Your task to perform on an android device: all mails in gmail Image 0: 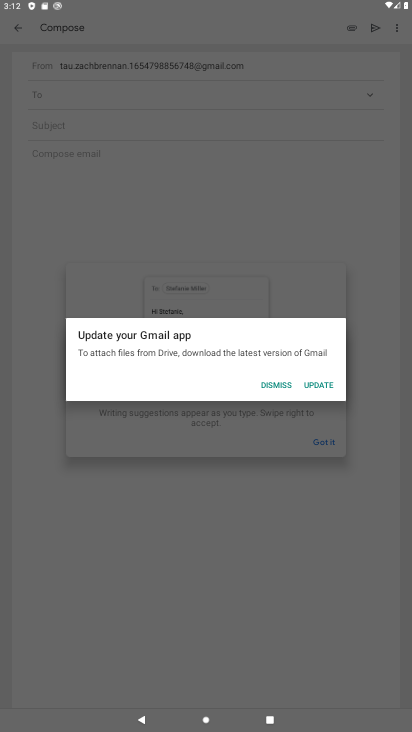
Step 0: click (274, 391)
Your task to perform on an android device: all mails in gmail Image 1: 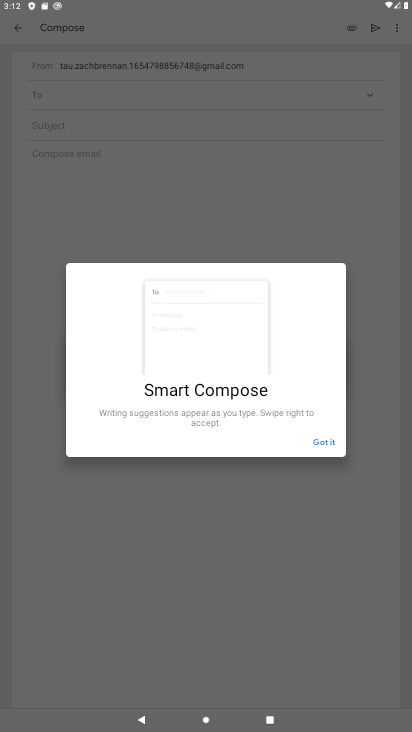
Step 1: press home button
Your task to perform on an android device: all mails in gmail Image 2: 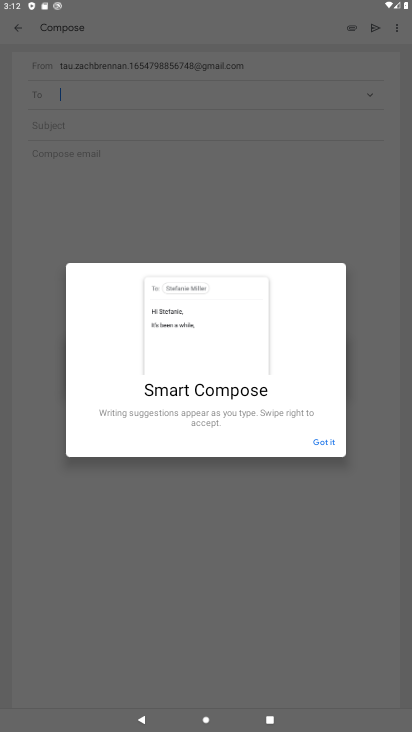
Step 2: press home button
Your task to perform on an android device: all mails in gmail Image 3: 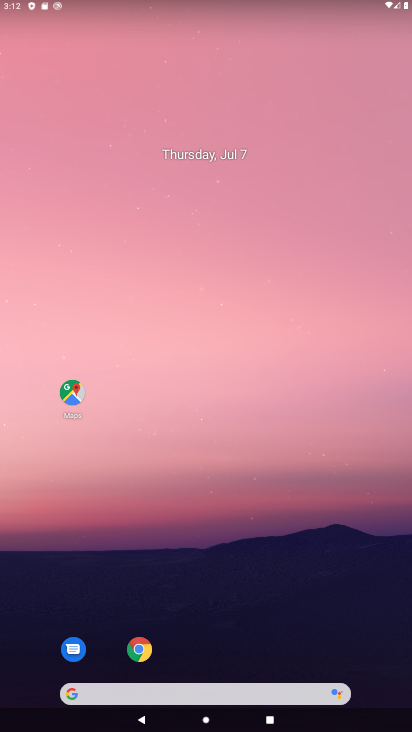
Step 3: drag from (140, 628) to (296, 123)
Your task to perform on an android device: all mails in gmail Image 4: 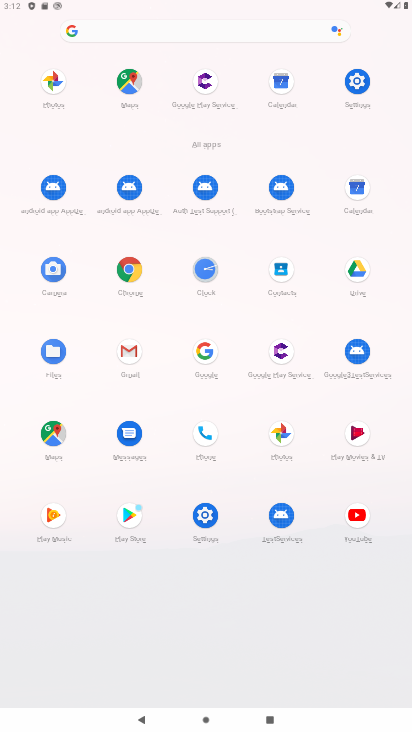
Step 4: click (127, 347)
Your task to perform on an android device: all mails in gmail Image 5: 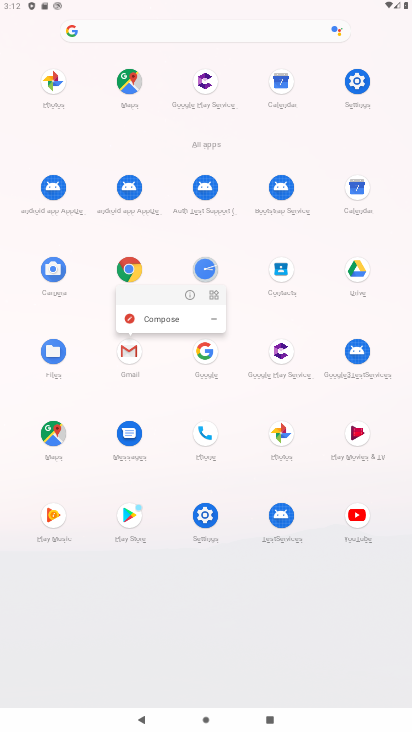
Step 5: click (188, 296)
Your task to perform on an android device: all mails in gmail Image 6: 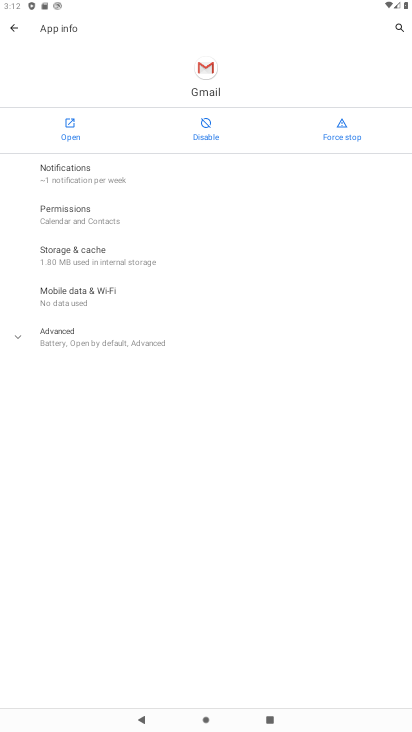
Step 6: click (73, 119)
Your task to perform on an android device: all mails in gmail Image 7: 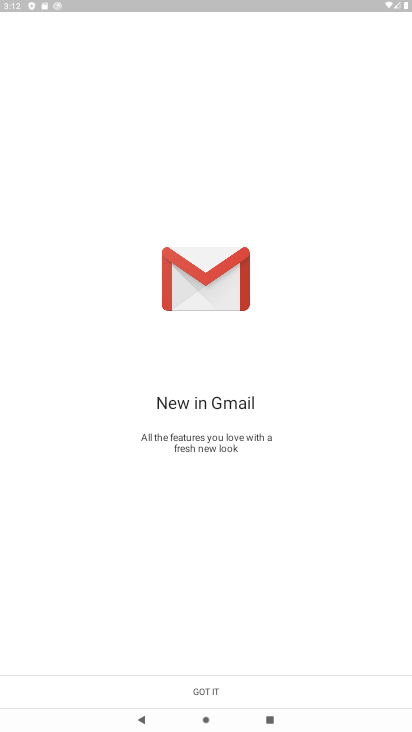
Step 7: click (206, 688)
Your task to perform on an android device: all mails in gmail Image 8: 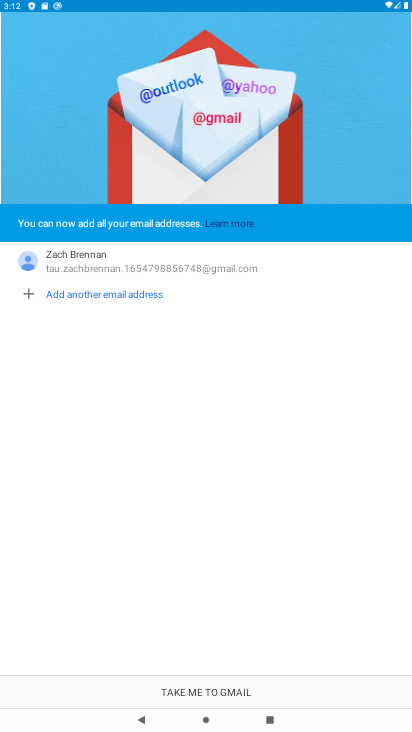
Step 8: click (204, 686)
Your task to perform on an android device: all mails in gmail Image 9: 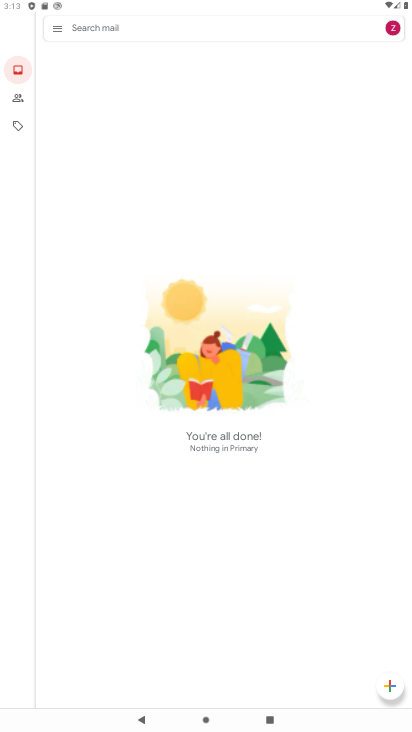
Step 9: click (308, 573)
Your task to perform on an android device: all mails in gmail Image 10: 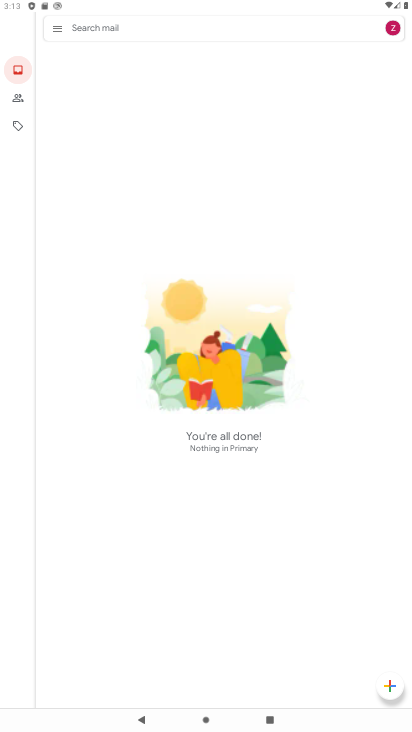
Step 10: click (57, 27)
Your task to perform on an android device: all mails in gmail Image 11: 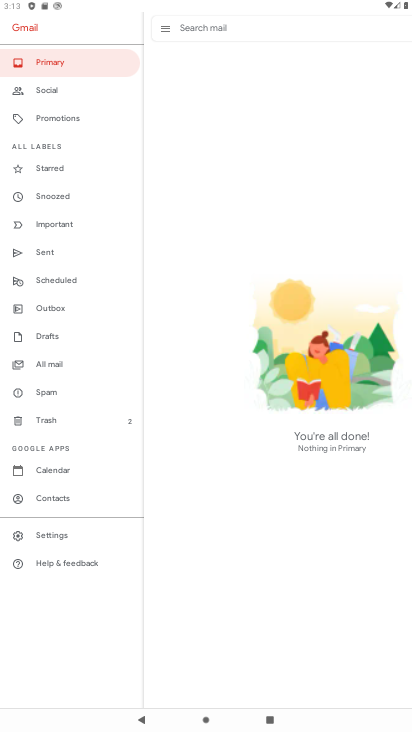
Step 11: click (45, 368)
Your task to perform on an android device: all mails in gmail Image 12: 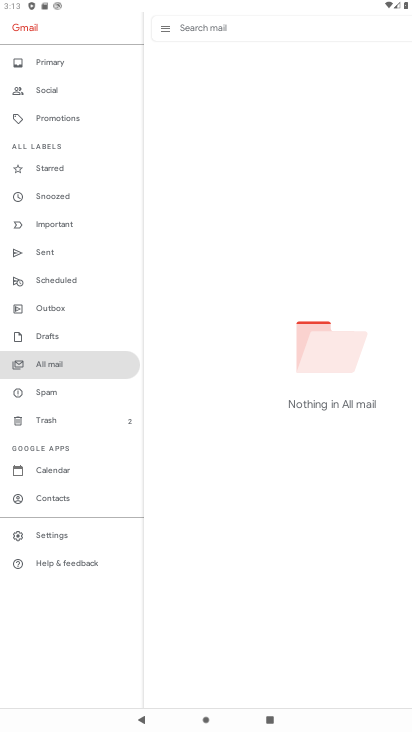
Step 12: click (277, 207)
Your task to perform on an android device: all mails in gmail Image 13: 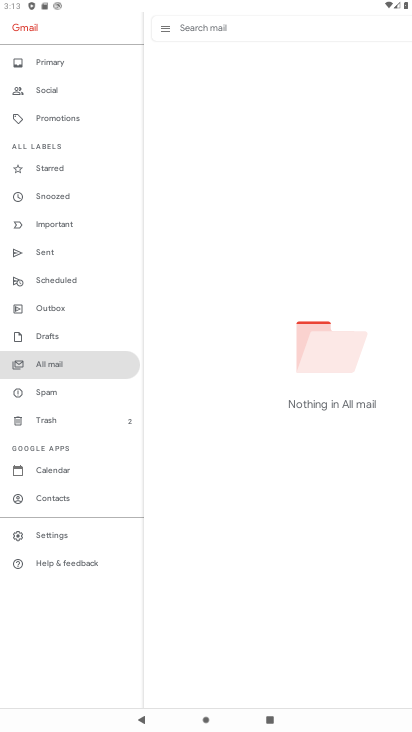
Step 13: task complete